Your task to perform on an android device: star an email in the gmail app Image 0: 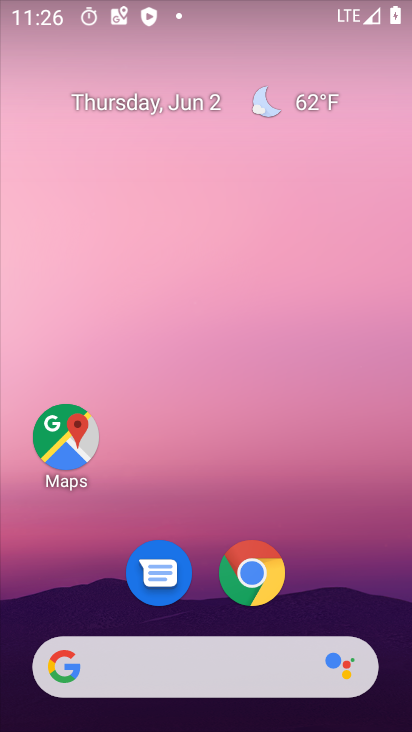
Step 0: drag from (287, 710) to (379, 12)
Your task to perform on an android device: star an email in the gmail app Image 1: 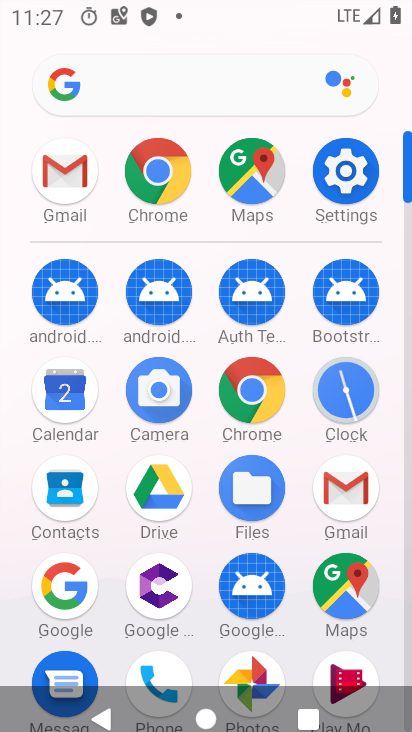
Step 1: click (343, 482)
Your task to perform on an android device: star an email in the gmail app Image 2: 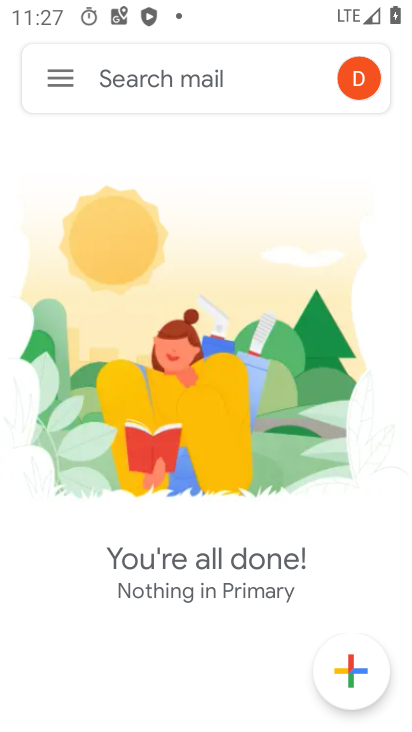
Step 2: click (72, 83)
Your task to perform on an android device: star an email in the gmail app Image 3: 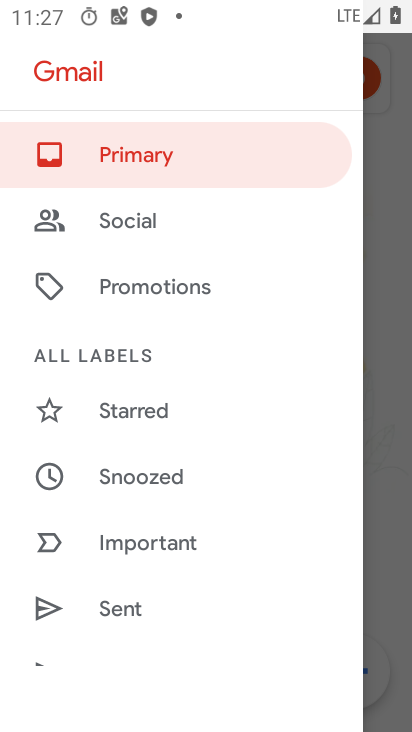
Step 3: click (387, 247)
Your task to perform on an android device: star an email in the gmail app Image 4: 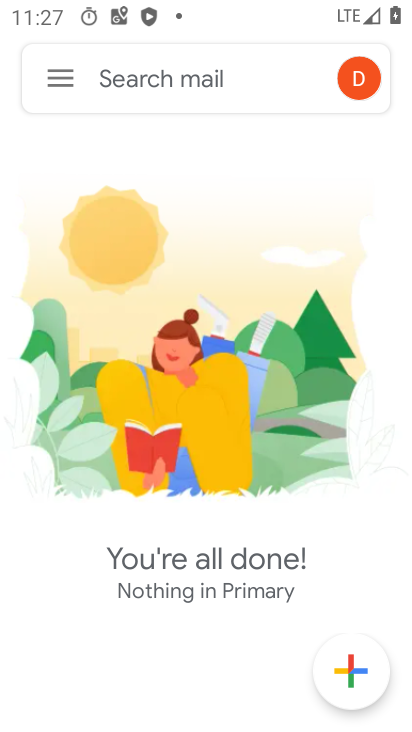
Step 4: task complete